Your task to perform on an android device: Search for pizza restaurants on Maps Image 0: 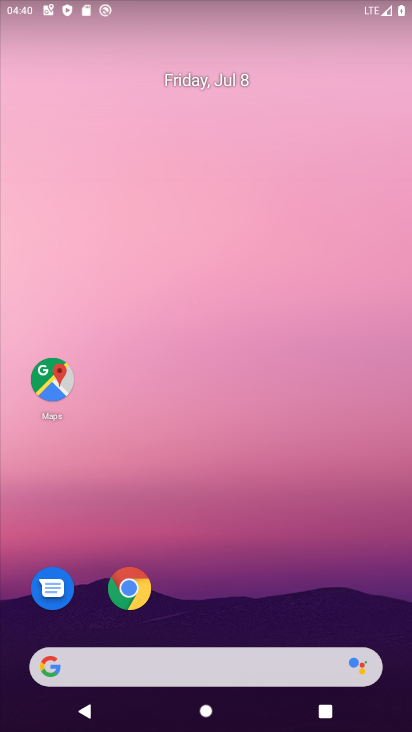
Step 0: click (45, 381)
Your task to perform on an android device: Search for pizza restaurants on Maps Image 1: 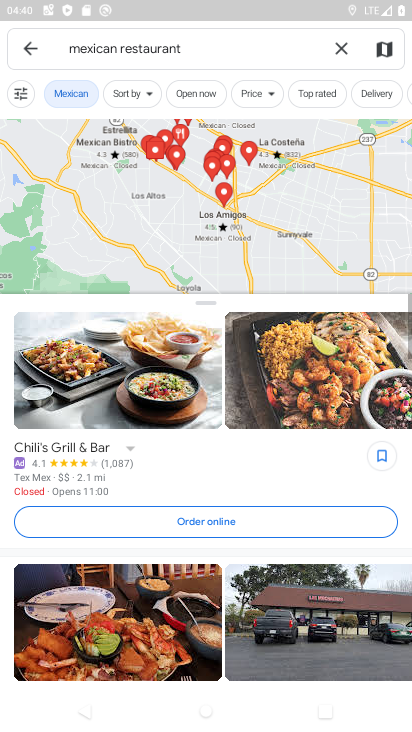
Step 1: click (34, 52)
Your task to perform on an android device: Search for pizza restaurants on Maps Image 2: 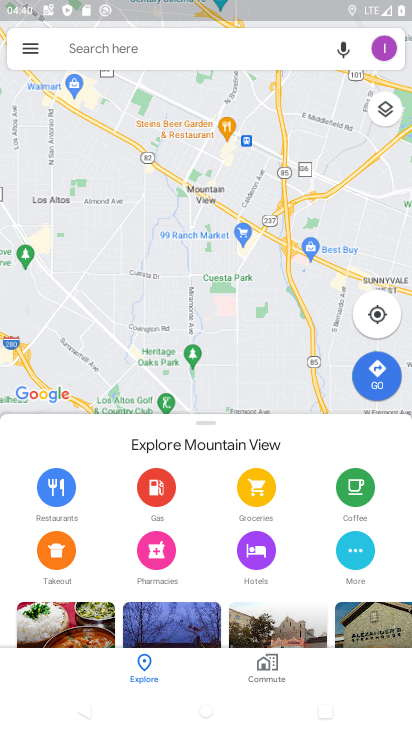
Step 2: click (143, 51)
Your task to perform on an android device: Search for pizza restaurants on Maps Image 3: 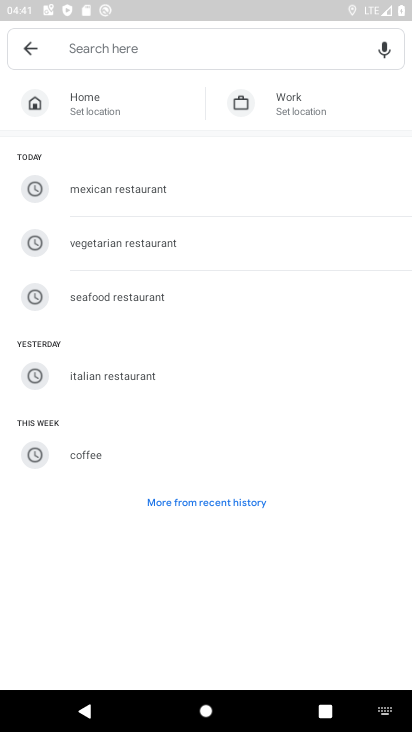
Step 3: type "pizza restaurants"
Your task to perform on an android device: Search for pizza restaurants on Maps Image 4: 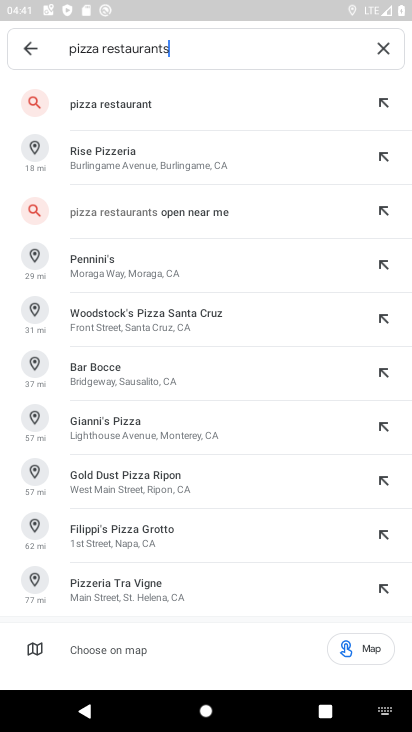
Step 4: click (129, 104)
Your task to perform on an android device: Search for pizza restaurants on Maps Image 5: 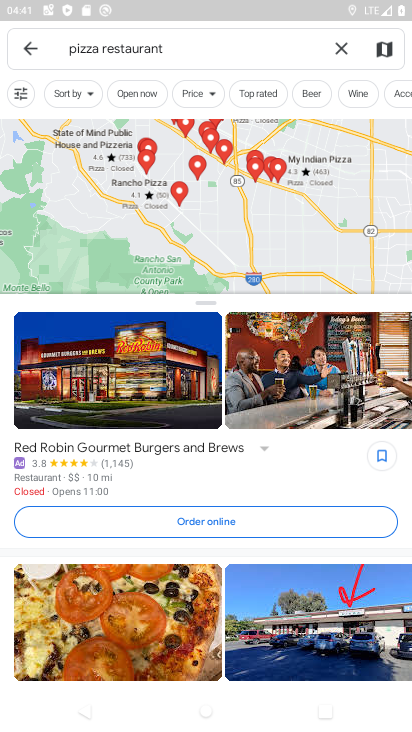
Step 5: task complete